Your task to perform on an android device: see creations saved in the google photos Image 0: 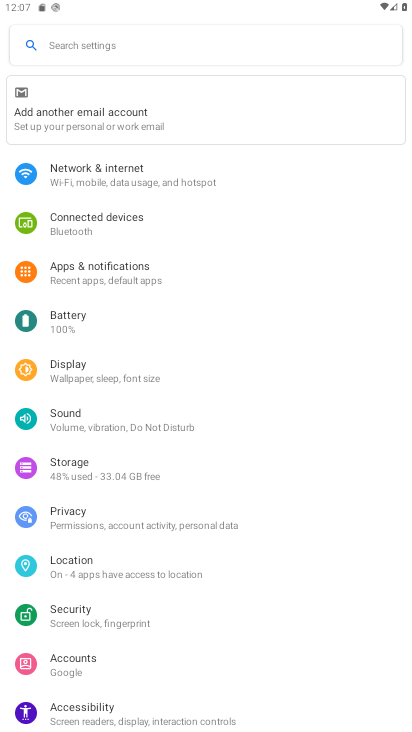
Step 0: press home button
Your task to perform on an android device: see creations saved in the google photos Image 1: 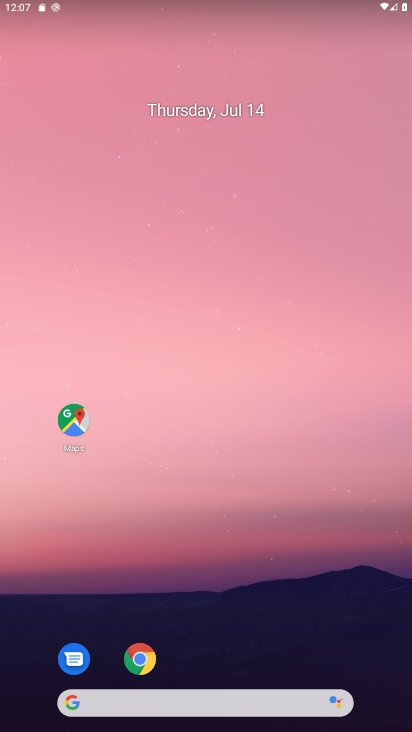
Step 1: drag from (258, 581) to (222, 69)
Your task to perform on an android device: see creations saved in the google photos Image 2: 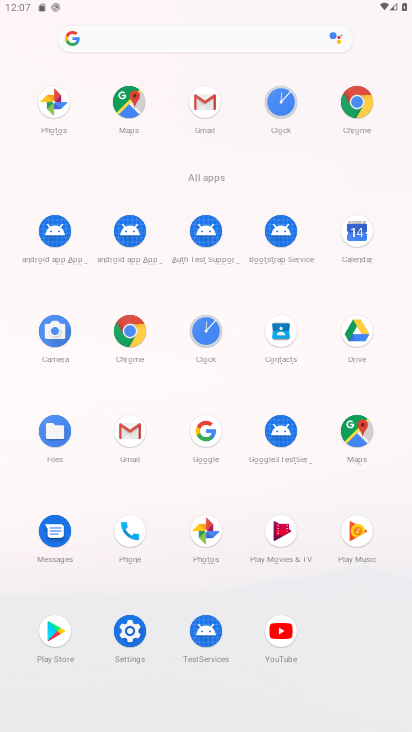
Step 2: click (215, 533)
Your task to perform on an android device: see creations saved in the google photos Image 3: 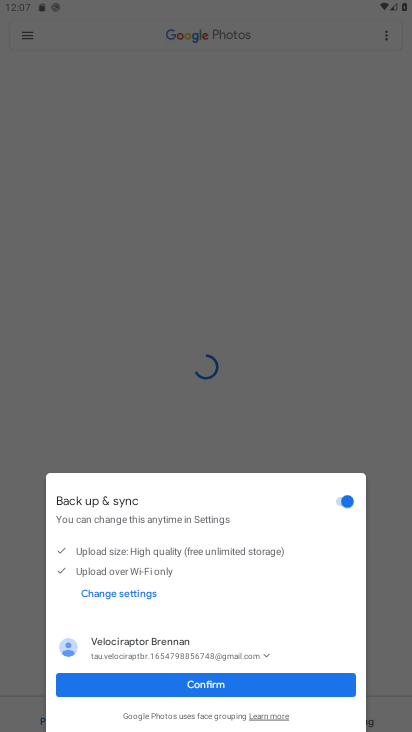
Step 3: click (241, 685)
Your task to perform on an android device: see creations saved in the google photos Image 4: 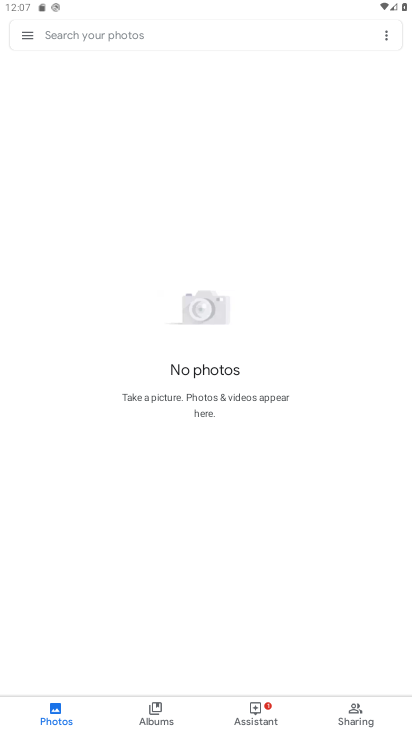
Step 4: click (272, 710)
Your task to perform on an android device: see creations saved in the google photos Image 5: 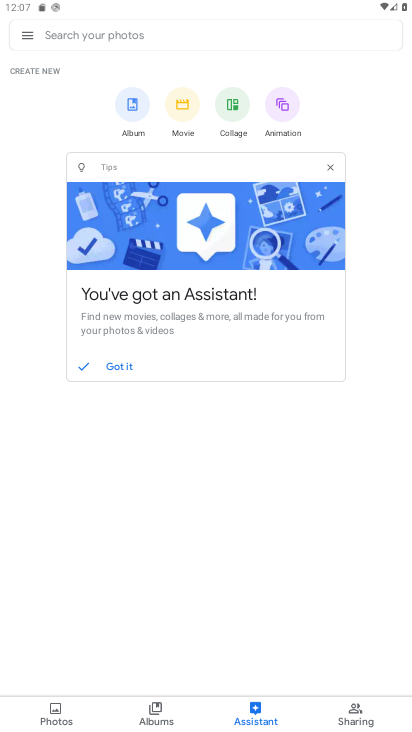
Step 5: click (162, 713)
Your task to perform on an android device: see creations saved in the google photos Image 6: 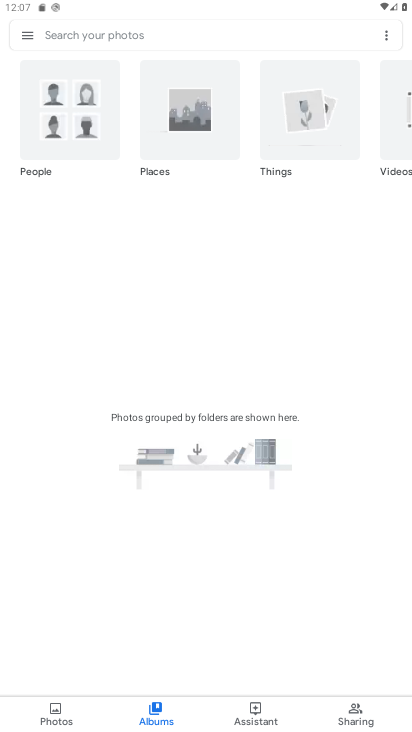
Step 6: click (370, 723)
Your task to perform on an android device: see creations saved in the google photos Image 7: 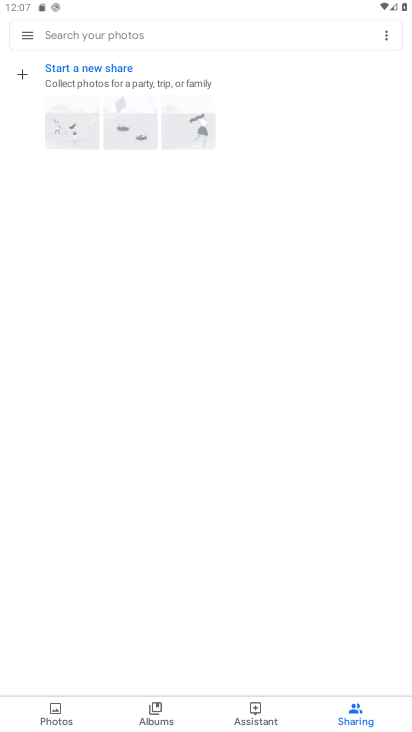
Step 7: click (271, 722)
Your task to perform on an android device: see creations saved in the google photos Image 8: 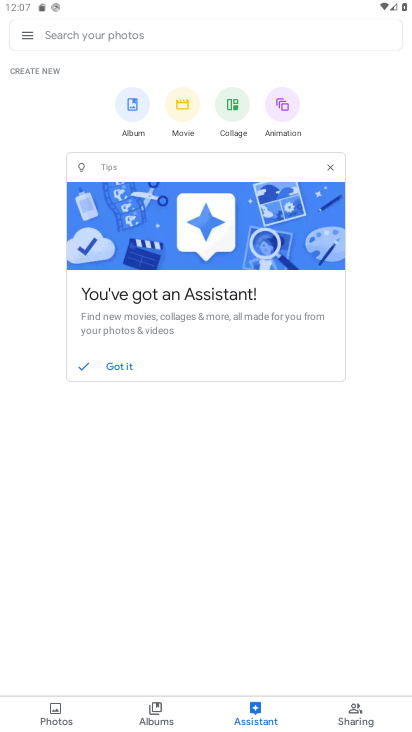
Step 8: task complete